Your task to perform on an android device: Go to wifi settings Image 0: 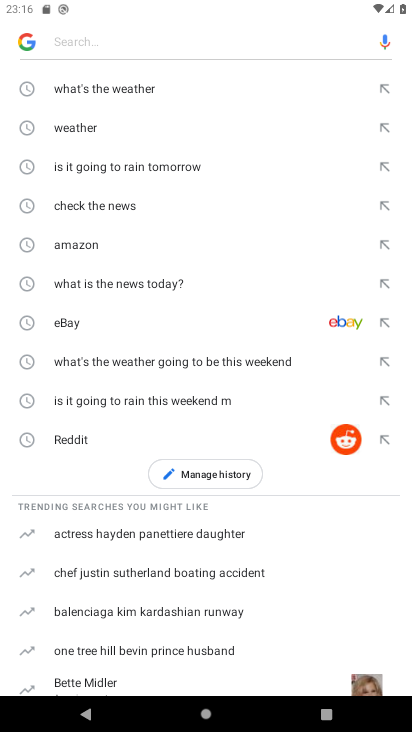
Step 0: press home button
Your task to perform on an android device: Go to wifi settings Image 1: 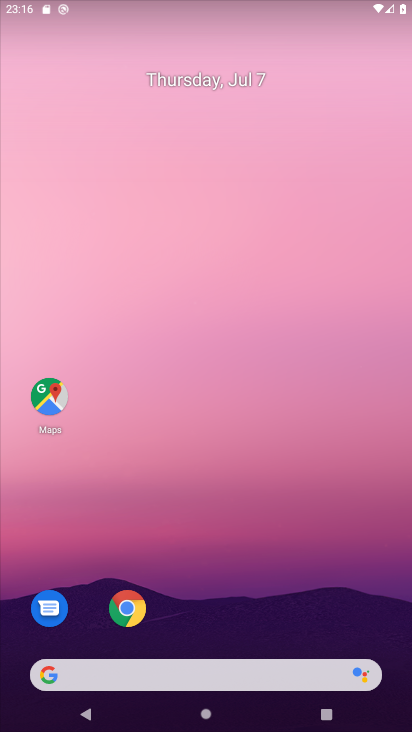
Step 1: drag from (207, 651) to (336, 356)
Your task to perform on an android device: Go to wifi settings Image 2: 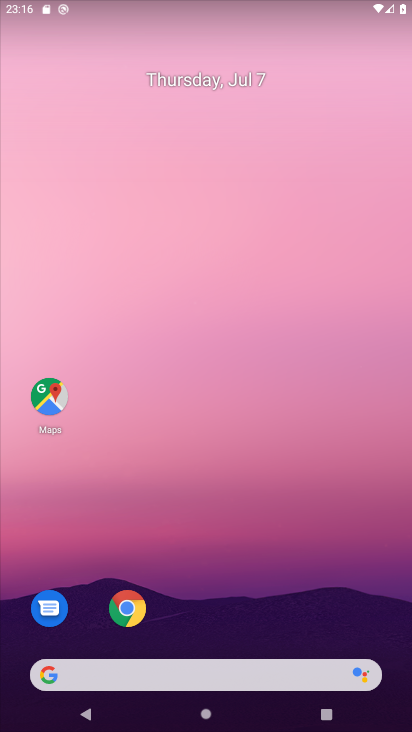
Step 2: drag from (228, 626) to (246, 125)
Your task to perform on an android device: Go to wifi settings Image 3: 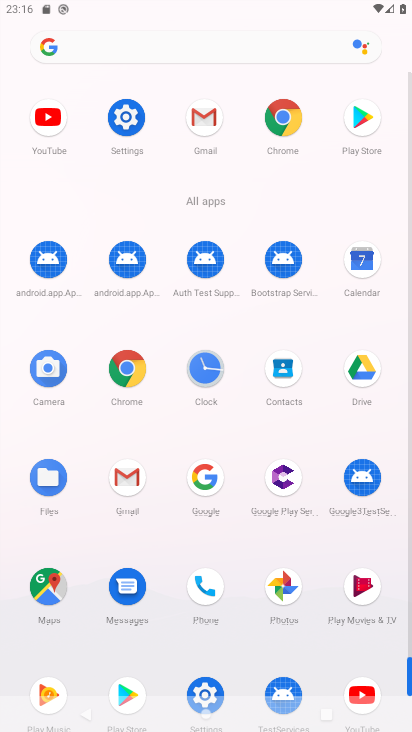
Step 3: click (127, 106)
Your task to perform on an android device: Go to wifi settings Image 4: 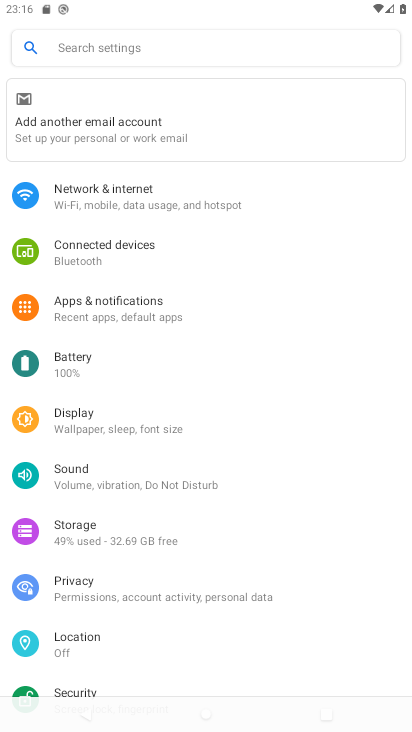
Step 4: click (133, 212)
Your task to perform on an android device: Go to wifi settings Image 5: 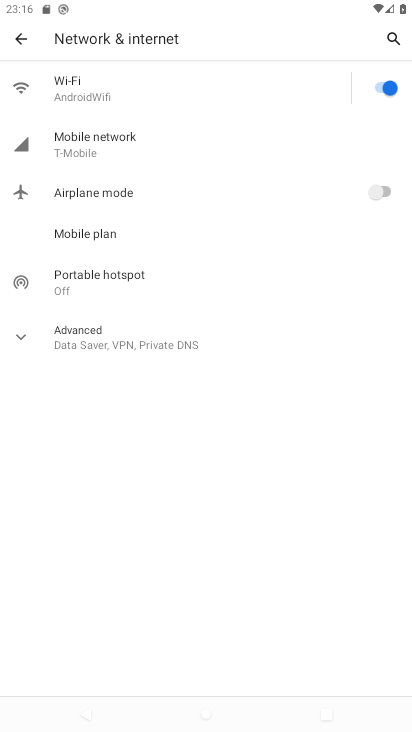
Step 5: click (111, 88)
Your task to perform on an android device: Go to wifi settings Image 6: 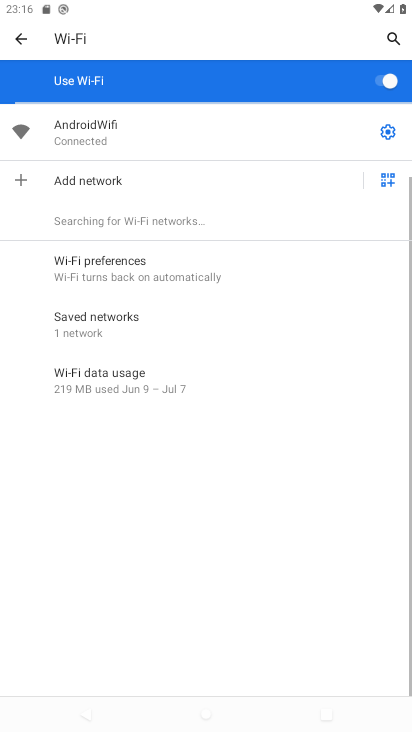
Step 6: task complete